Your task to perform on an android device: Open Amazon Image 0: 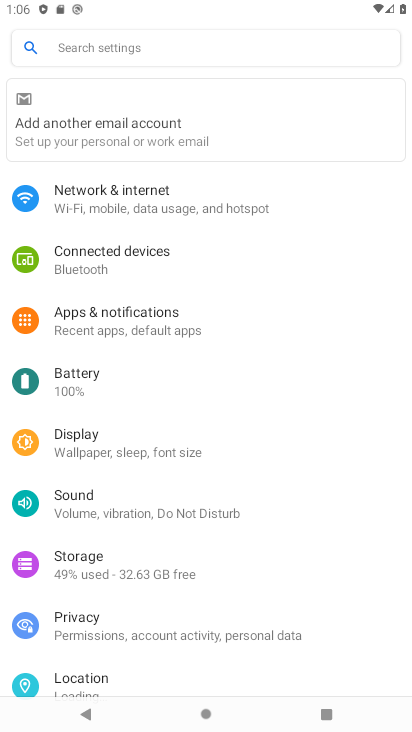
Step 0: press home button
Your task to perform on an android device: Open Amazon Image 1: 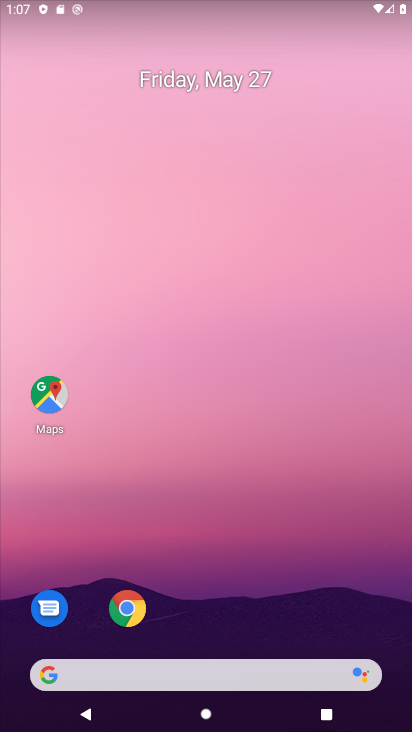
Step 1: click (124, 611)
Your task to perform on an android device: Open Amazon Image 2: 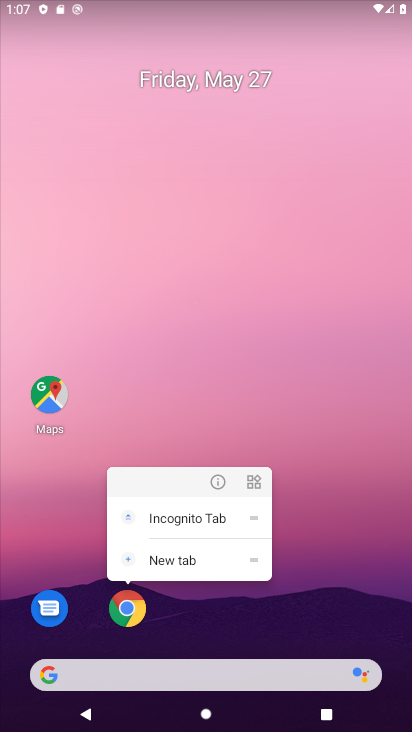
Step 2: click (137, 604)
Your task to perform on an android device: Open Amazon Image 3: 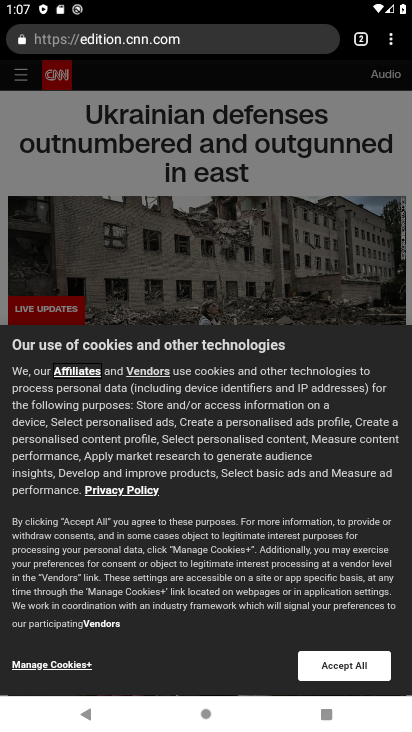
Step 3: click (391, 54)
Your task to perform on an android device: Open Amazon Image 4: 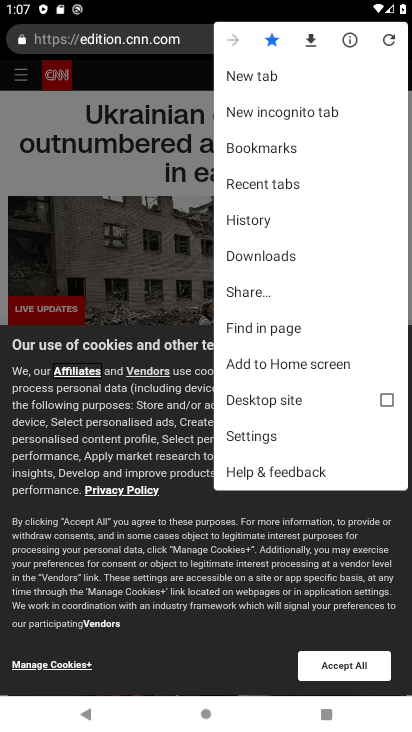
Step 4: click (260, 79)
Your task to perform on an android device: Open Amazon Image 5: 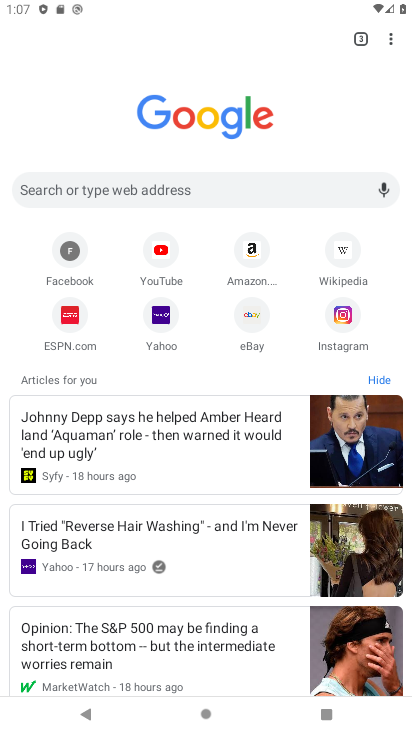
Step 5: click (251, 257)
Your task to perform on an android device: Open Amazon Image 6: 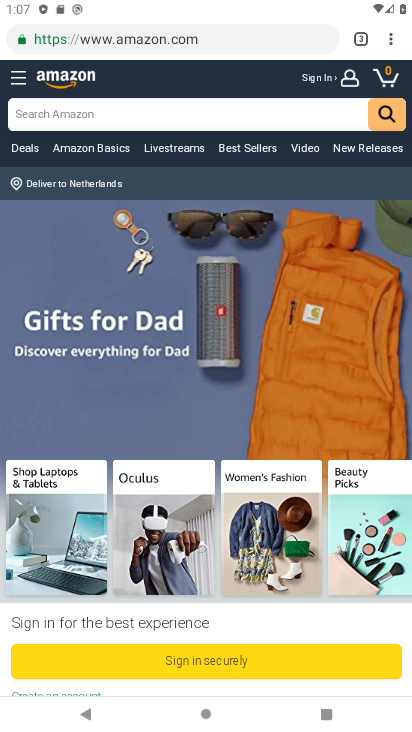
Step 6: task complete